Your task to perform on an android device: Open Wikipedia Image 0: 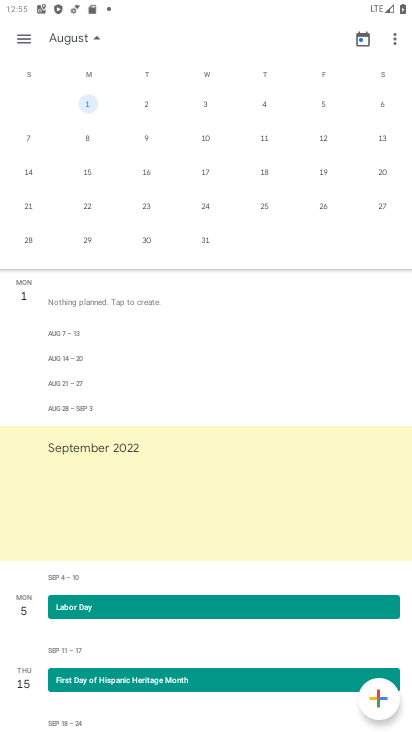
Step 0: press home button
Your task to perform on an android device: Open Wikipedia Image 1: 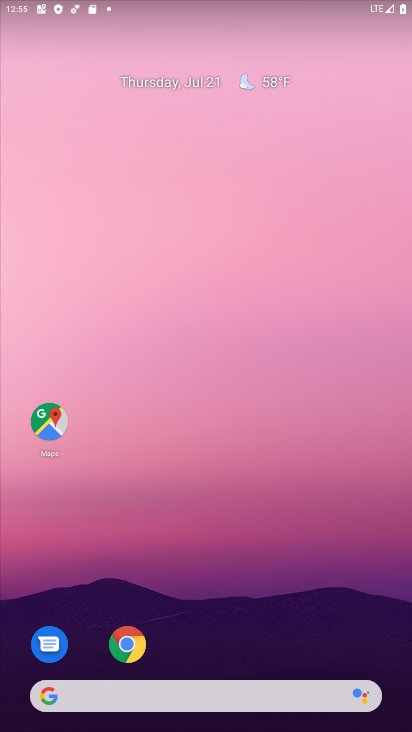
Step 1: drag from (350, 606) to (349, 77)
Your task to perform on an android device: Open Wikipedia Image 2: 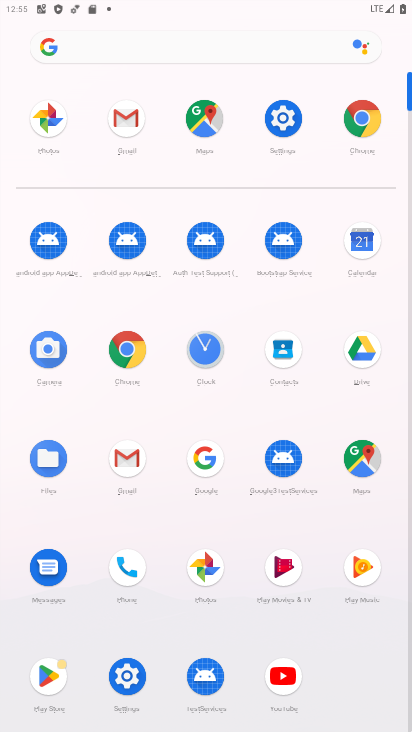
Step 2: click (132, 372)
Your task to perform on an android device: Open Wikipedia Image 3: 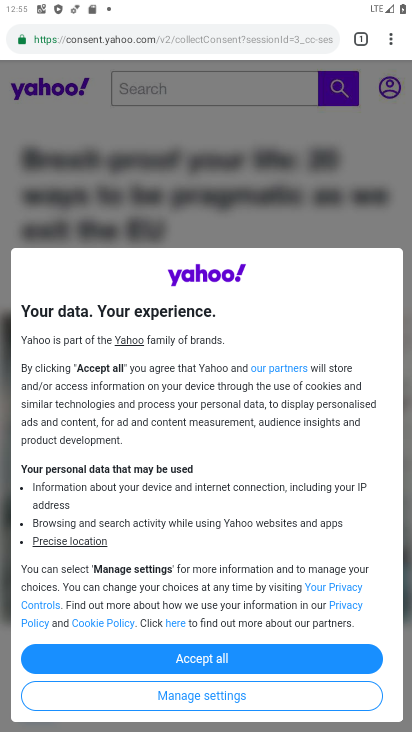
Step 3: click (246, 40)
Your task to perform on an android device: Open Wikipedia Image 4: 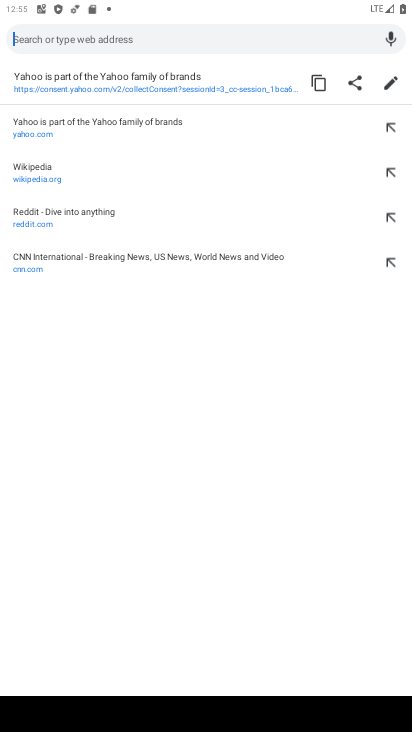
Step 4: type "wikipedia"
Your task to perform on an android device: Open Wikipedia Image 5: 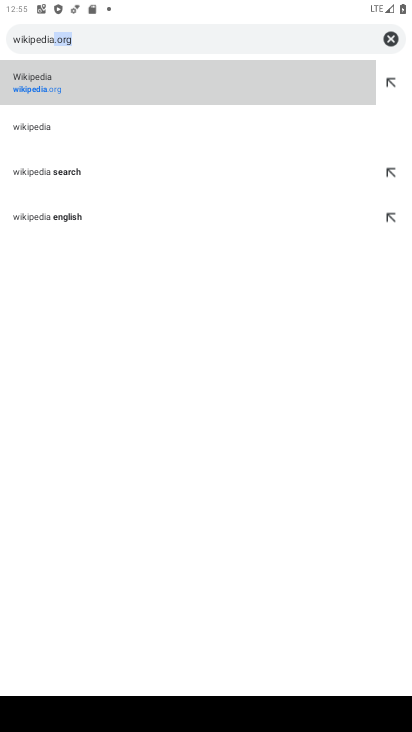
Step 5: click (255, 87)
Your task to perform on an android device: Open Wikipedia Image 6: 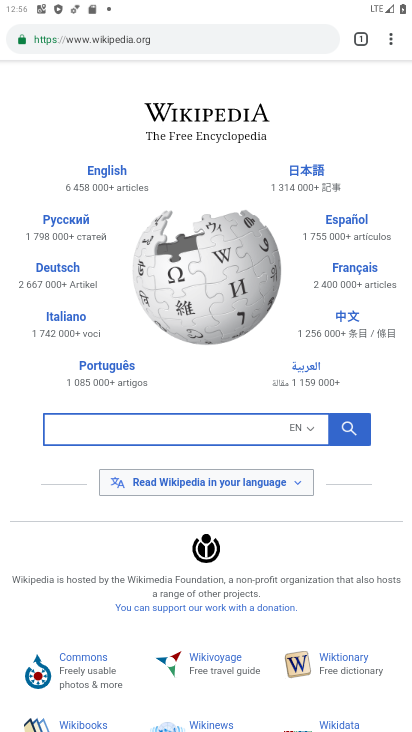
Step 6: task complete